Your task to perform on an android device: Go to battery settings Image 0: 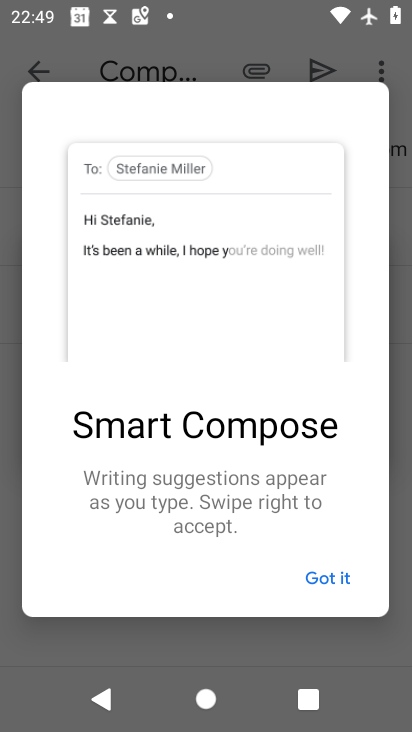
Step 0: press home button
Your task to perform on an android device: Go to battery settings Image 1: 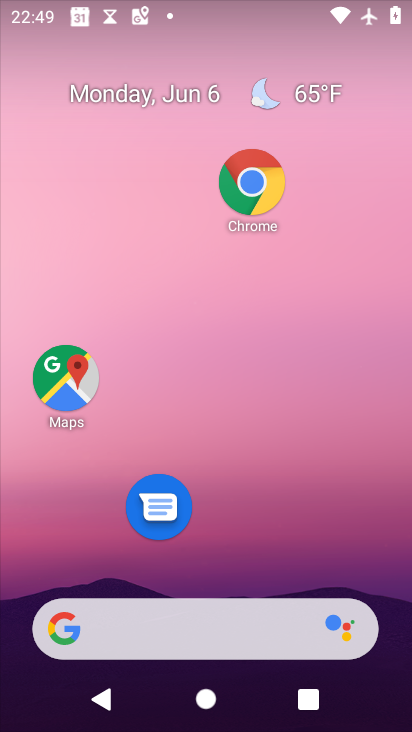
Step 1: drag from (236, 519) to (236, 177)
Your task to perform on an android device: Go to battery settings Image 2: 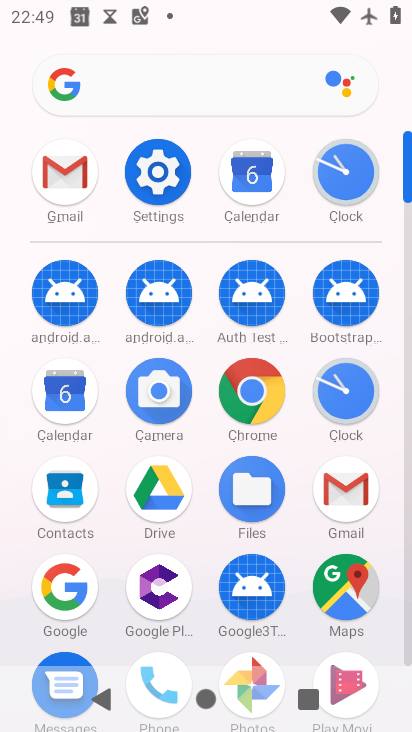
Step 2: click (145, 154)
Your task to perform on an android device: Go to battery settings Image 3: 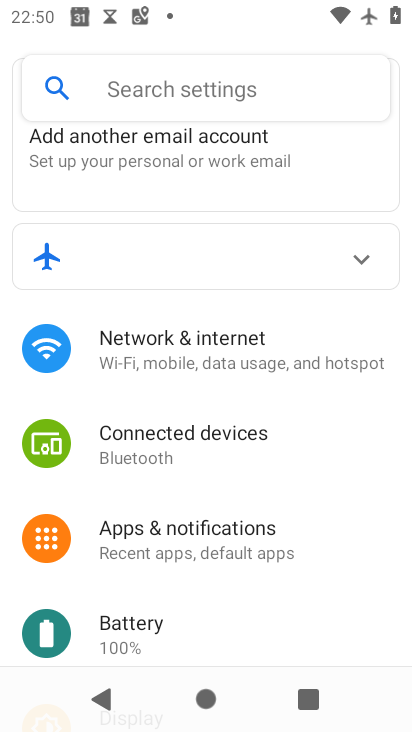
Step 3: click (160, 616)
Your task to perform on an android device: Go to battery settings Image 4: 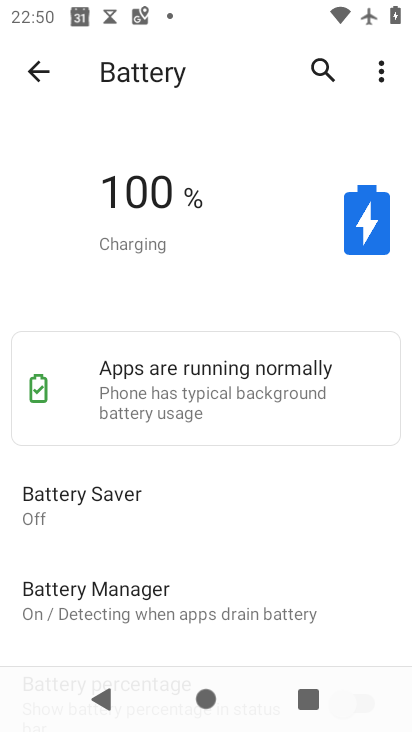
Step 4: task complete